Your task to perform on an android device: toggle improve location accuracy Image 0: 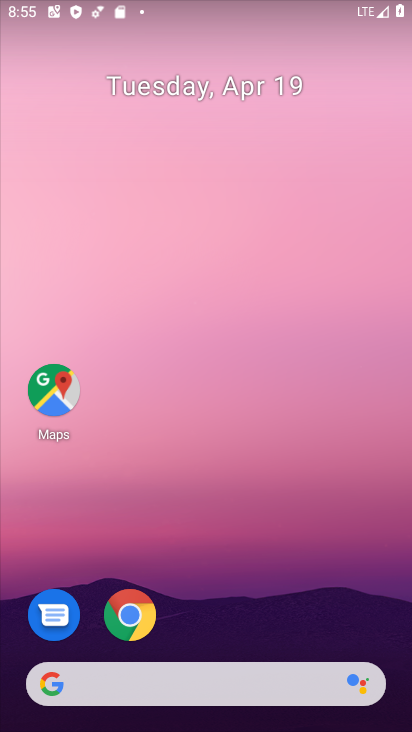
Step 0: drag from (255, 643) to (277, 62)
Your task to perform on an android device: toggle improve location accuracy Image 1: 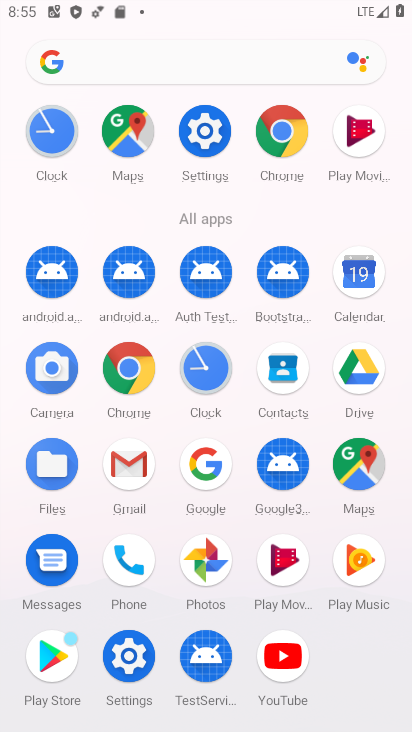
Step 1: click (134, 663)
Your task to perform on an android device: toggle improve location accuracy Image 2: 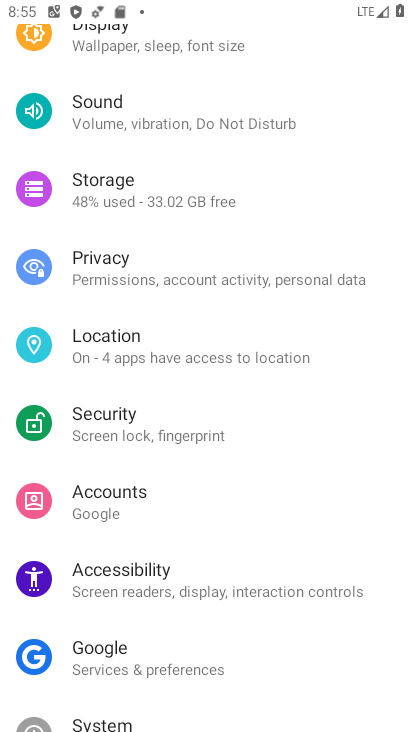
Step 2: click (200, 369)
Your task to perform on an android device: toggle improve location accuracy Image 3: 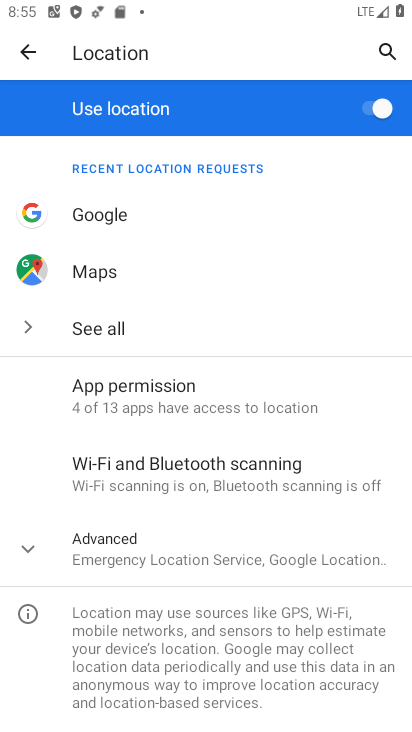
Step 3: click (123, 567)
Your task to perform on an android device: toggle improve location accuracy Image 4: 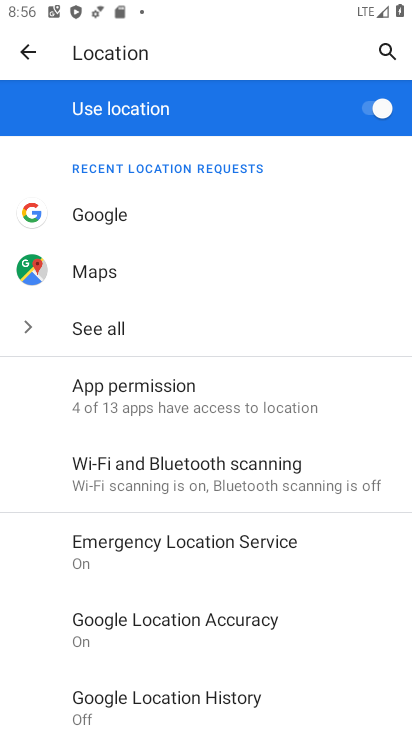
Step 4: click (213, 613)
Your task to perform on an android device: toggle improve location accuracy Image 5: 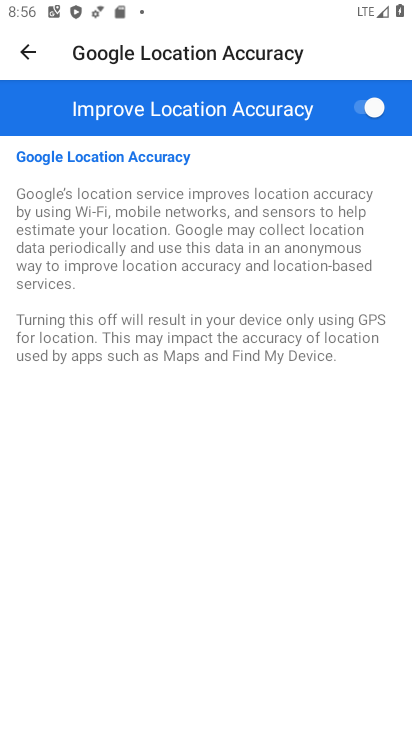
Step 5: click (382, 97)
Your task to perform on an android device: toggle improve location accuracy Image 6: 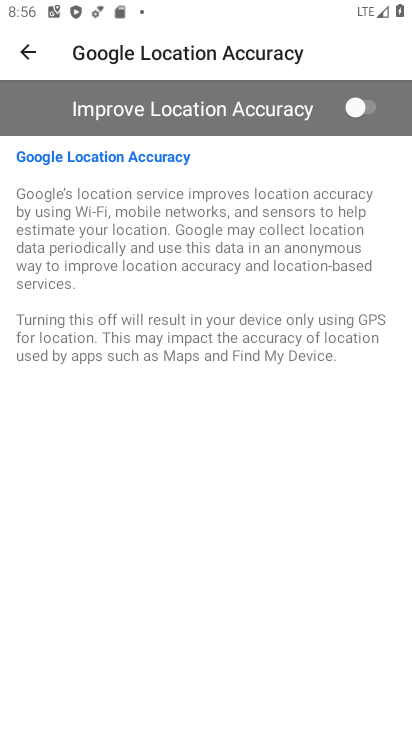
Step 6: click (382, 97)
Your task to perform on an android device: toggle improve location accuracy Image 7: 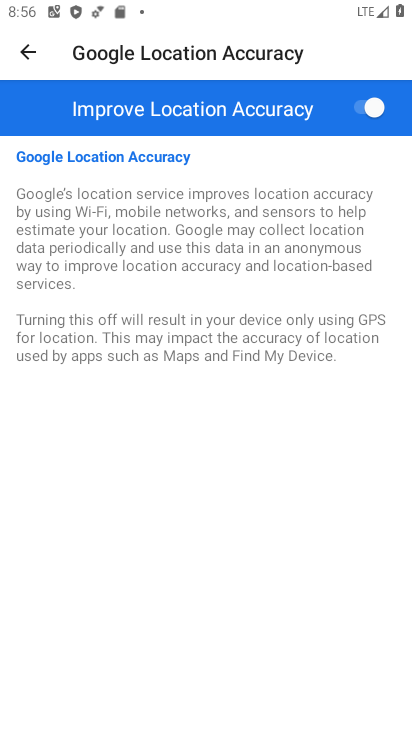
Step 7: click (382, 97)
Your task to perform on an android device: toggle improve location accuracy Image 8: 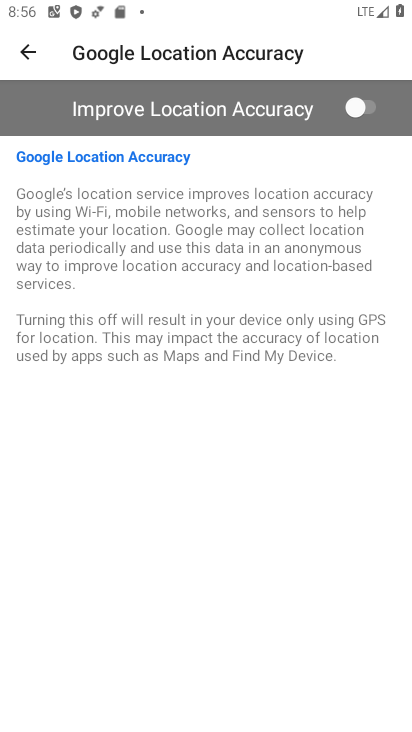
Step 8: task complete